Your task to perform on an android device: Show me the alarms in the clock app Image 0: 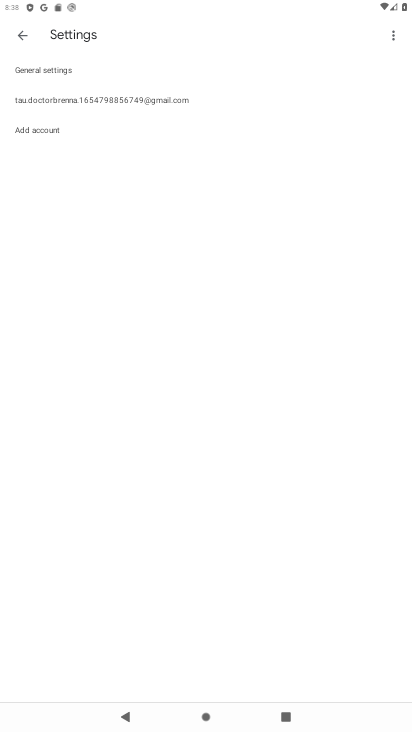
Step 0: press home button
Your task to perform on an android device: Show me the alarms in the clock app Image 1: 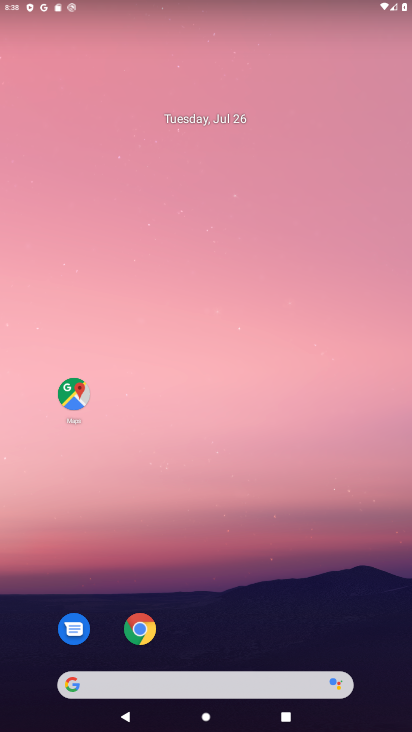
Step 1: drag from (294, 616) to (226, 125)
Your task to perform on an android device: Show me the alarms in the clock app Image 2: 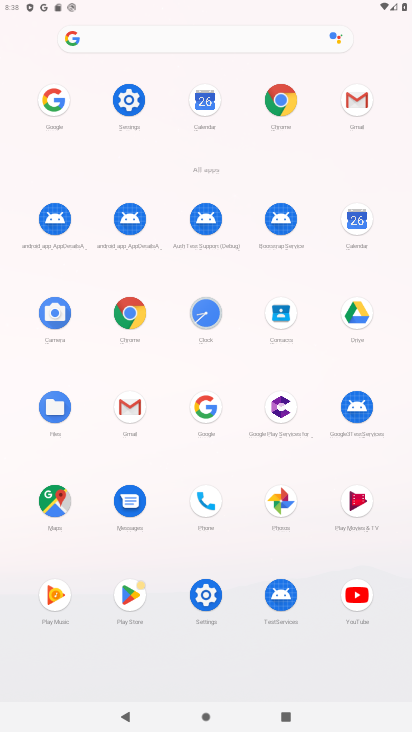
Step 2: click (197, 293)
Your task to perform on an android device: Show me the alarms in the clock app Image 3: 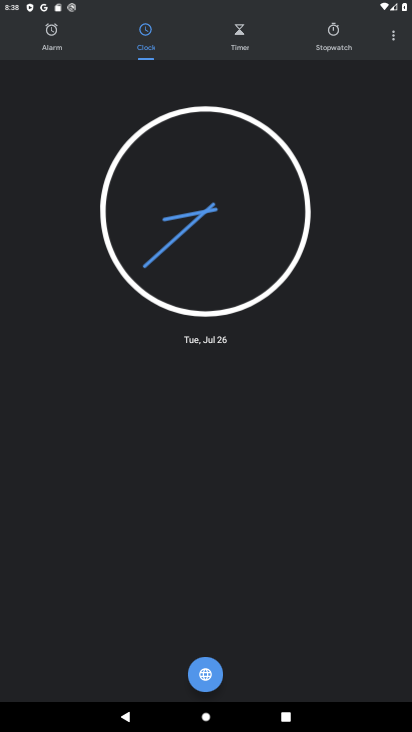
Step 3: click (40, 42)
Your task to perform on an android device: Show me the alarms in the clock app Image 4: 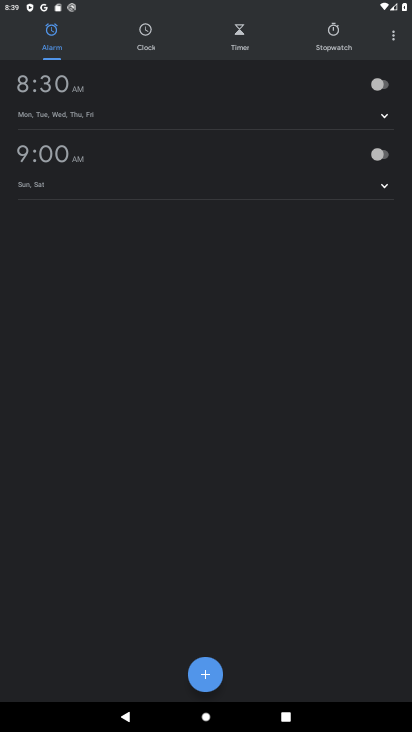
Step 4: task complete